Your task to perform on an android device: Check the weather Image 0: 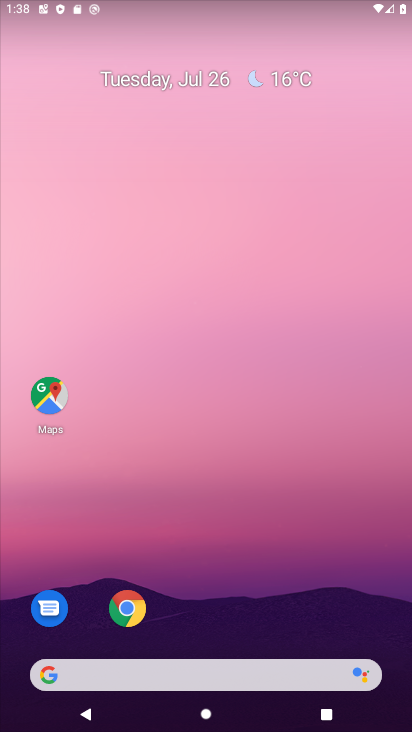
Step 0: drag from (293, 629) to (202, 134)
Your task to perform on an android device: Check the weather Image 1: 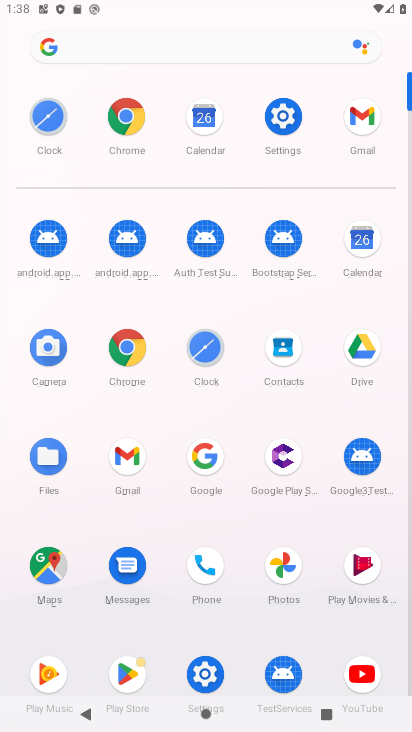
Step 1: click (170, 54)
Your task to perform on an android device: Check the weather Image 2: 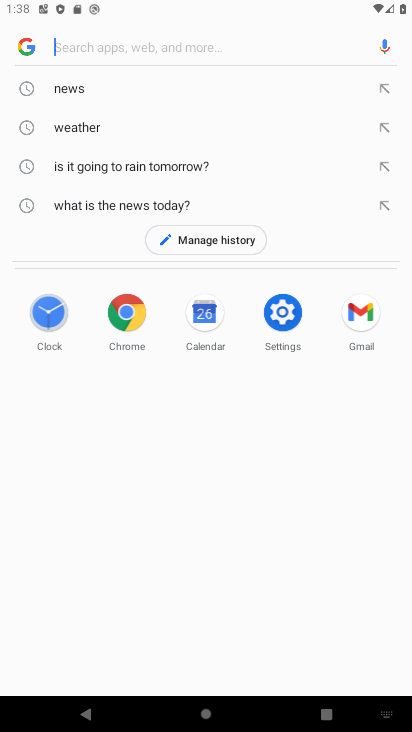
Step 2: click (99, 132)
Your task to perform on an android device: Check the weather Image 3: 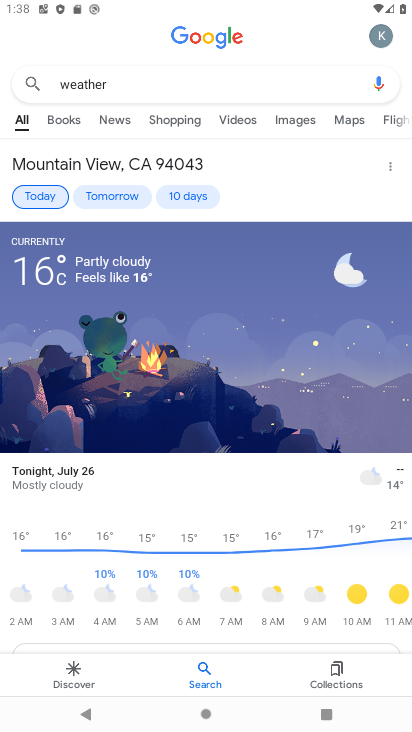
Step 3: task complete